Your task to perform on an android device: choose inbox layout in the gmail app Image 0: 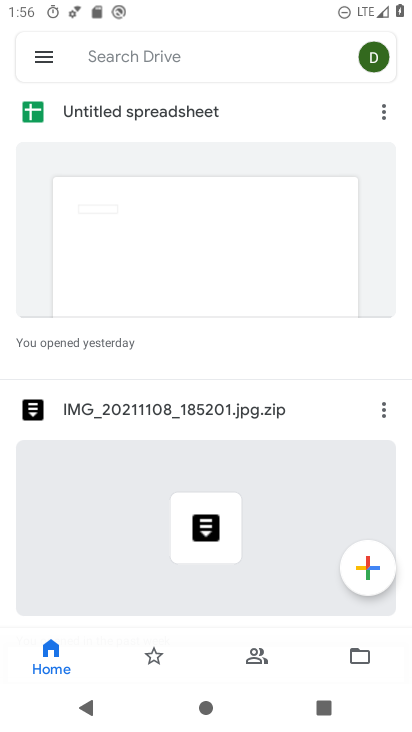
Step 0: press home button
Your task to perform on an android device: choose inbox layout in the gmail app Image 1: 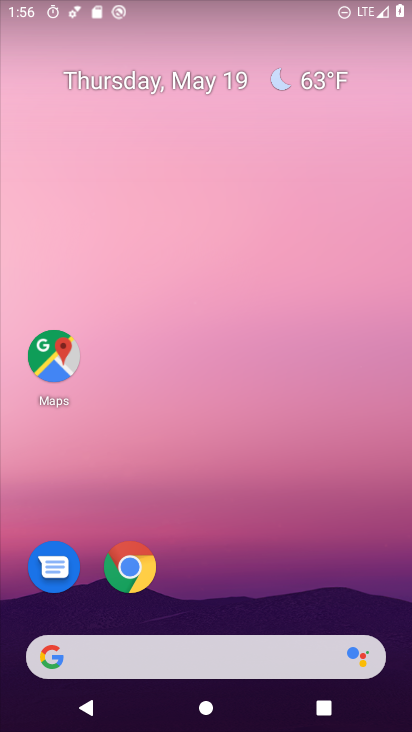
Step 1: drag from (175, 662) to (300, 112)
Your task to perform on an android device: choose inbox layout in the gmail app Image 2: 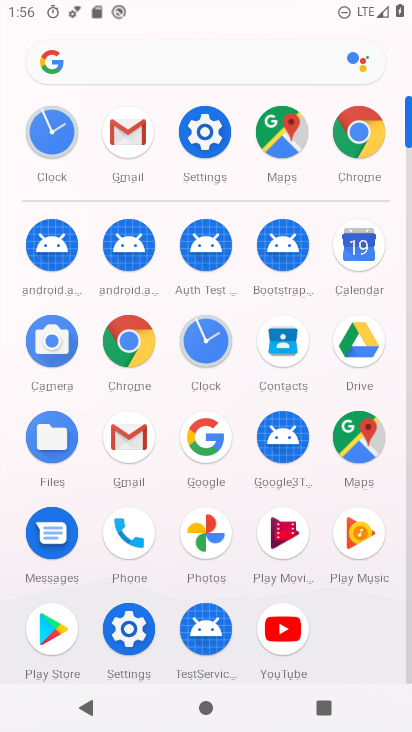
Step 2: click (128, 143)
Your task to perform on an android device: choose inbox layout in the gmail app Image 3: 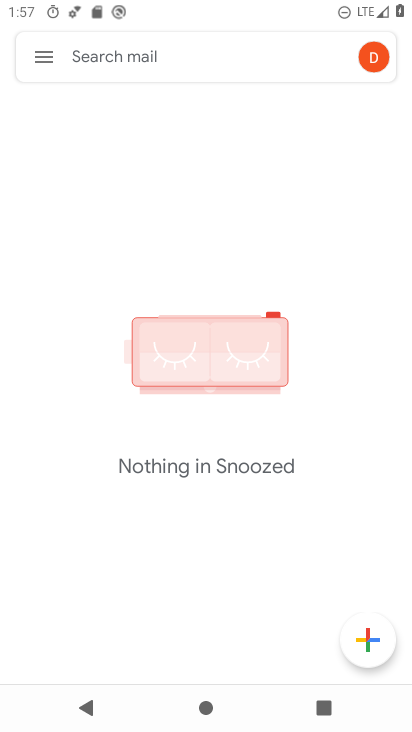
Step 3: click (41, 55)
Your task to perform on an android device: choose inbox layout in the gmail app Image 4: 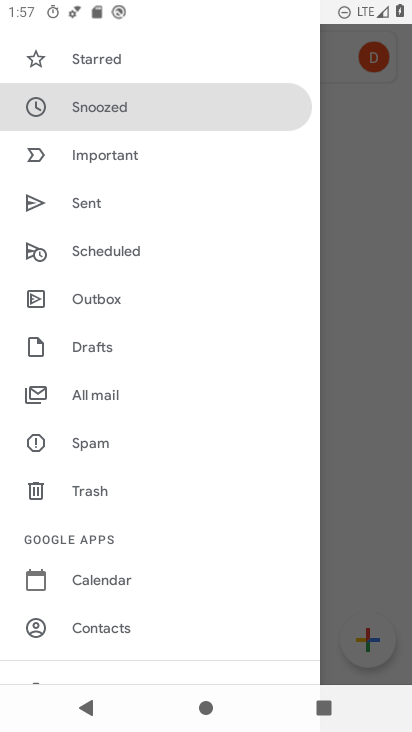
Step 4: drag from (134, 634) to (256, 228)
Your task to perform on an android device: choose inbox layout in the gmail app Image 5: 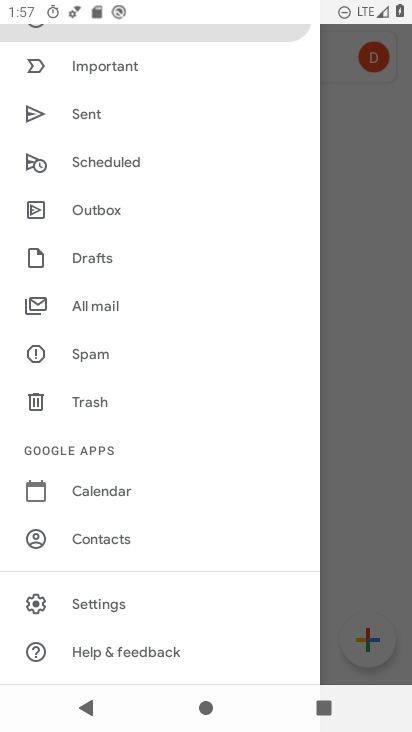
Step 5: click (113, 592)
Your task to perform on an android device: choose inbox layout in the gmail app Image 6: 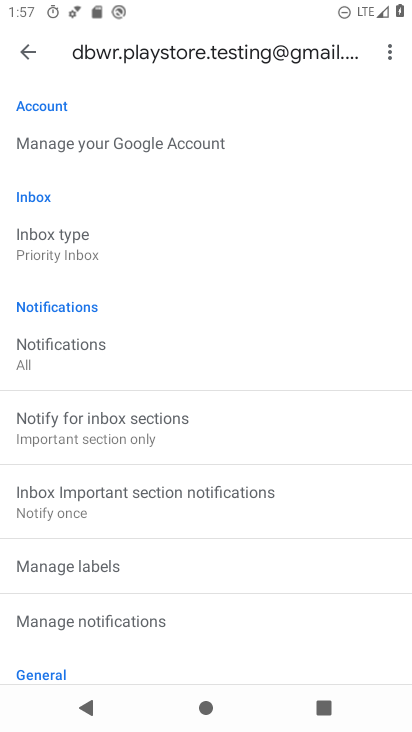
Step 6: click (76, 246)
Your task to perform on an android device: choose inbox layout in the gmail app Image 7: 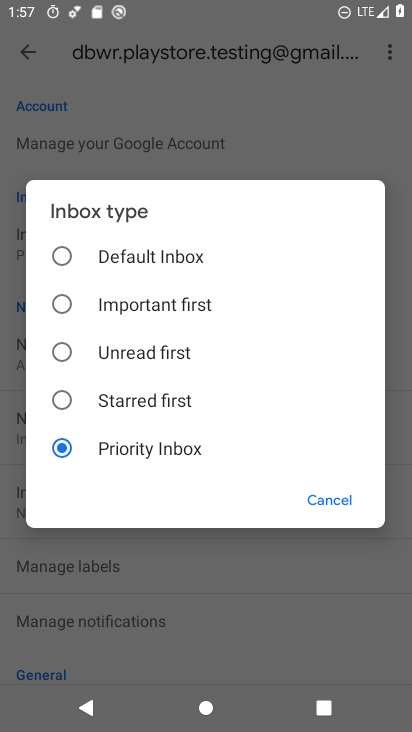
Step 7: click (62, 259)
Your task to perform on an android device: choose inbox layout in the gmail app Image 8: 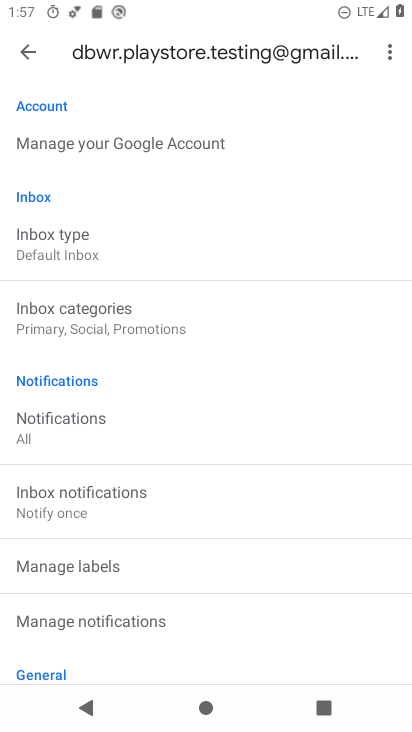
Step 8: task complete